Your task to perform on an android device: Open network settings Image 0: 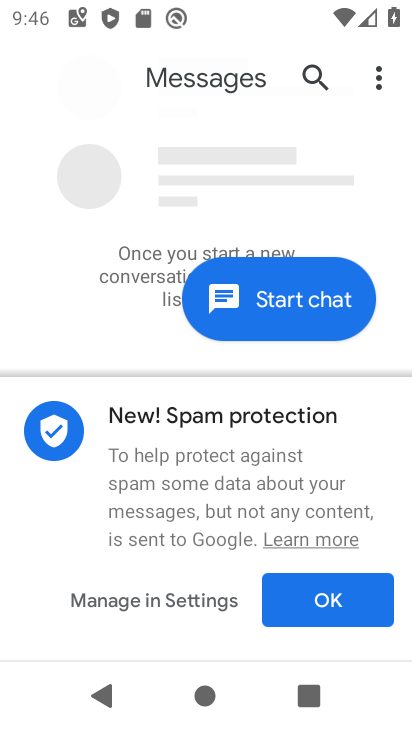
Step 0: press home button
Your task to perform on an android device: Open network settings Image 1: 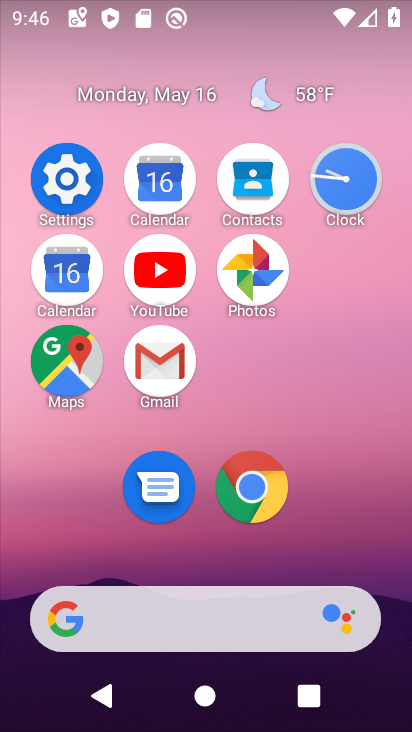
Step 1: click (73, 179)
Your task to perform on an android device: Open network settings Image 2: 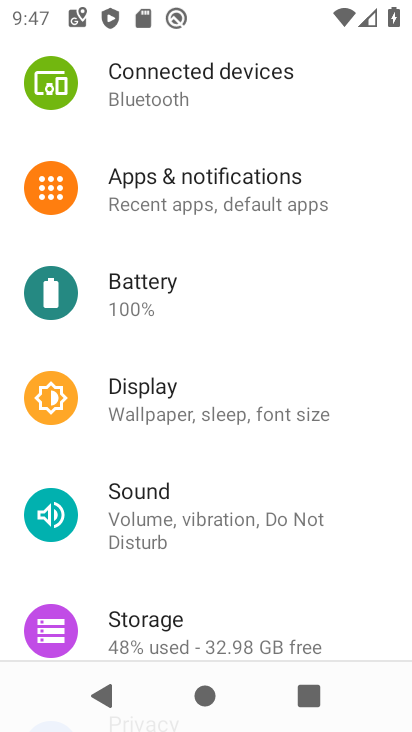
Step 2: drag from (348, 207) to (247, 616)
Your task to perform on an android device: Open network settings Image 3: 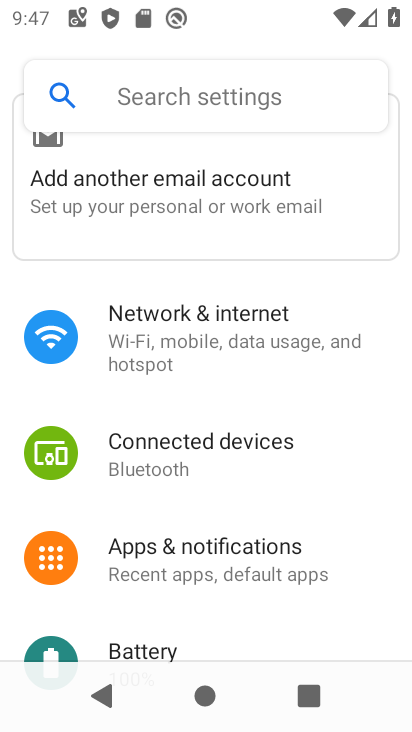
Step 3: click (243, 352)
Your task to perform on an android device: Open network settings Image 4: 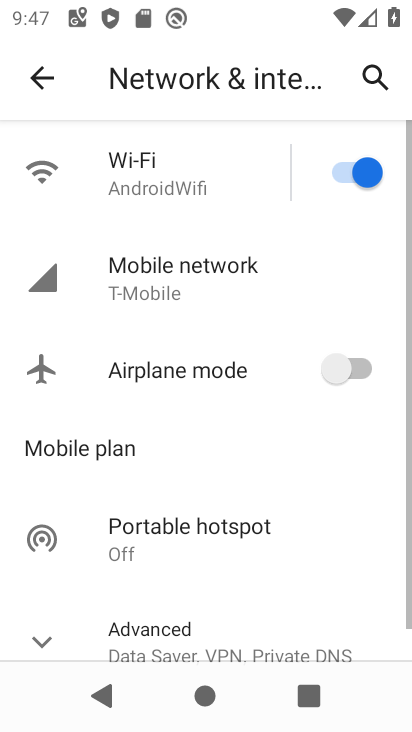
Step 4: click (195, 262)
Your task to perform on an android device: Open network settings Image 5: 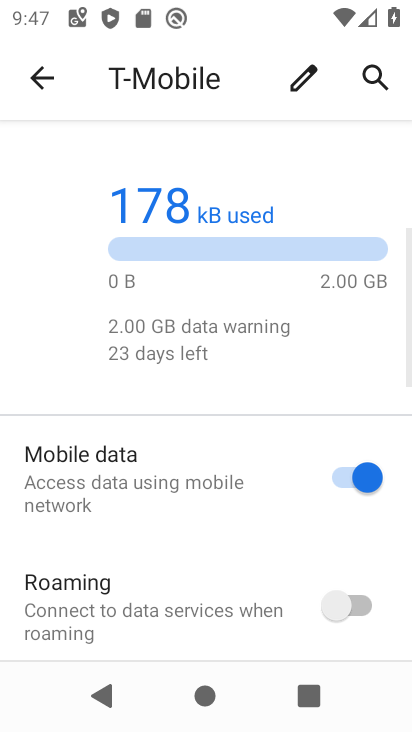
Step 5: task complete